Your task to perform on an android device: all mails in gmail Image 0: 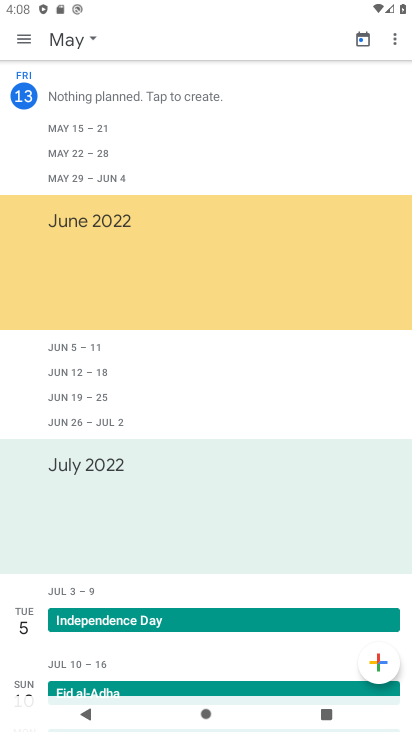
Step 0: press home button
Your task to perform on an android device: all mails in gmail Image 1: 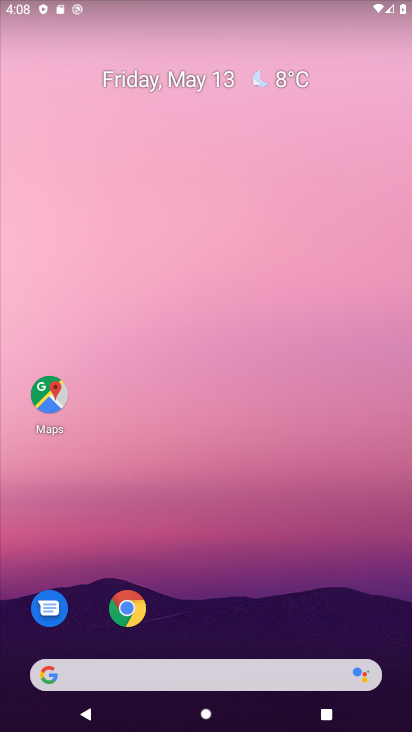
Step 1: drag from (217, 559) to (208, 74)
Your task to perform on an android device: all mails in gmail Image 2: 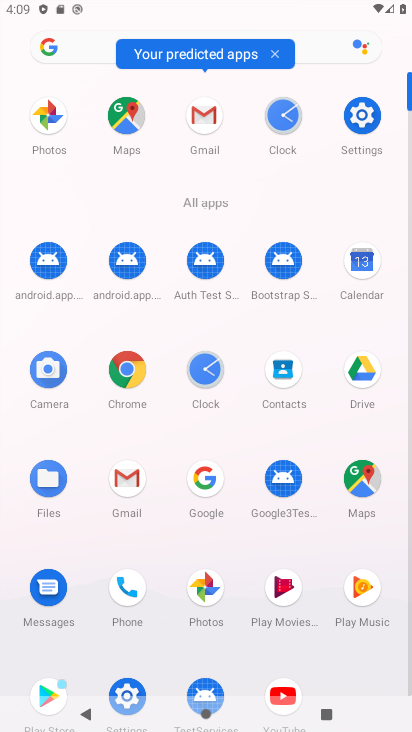
Step 2: click (199, 114)
Your task to perform on an android device: all mails in gmail Image 3: 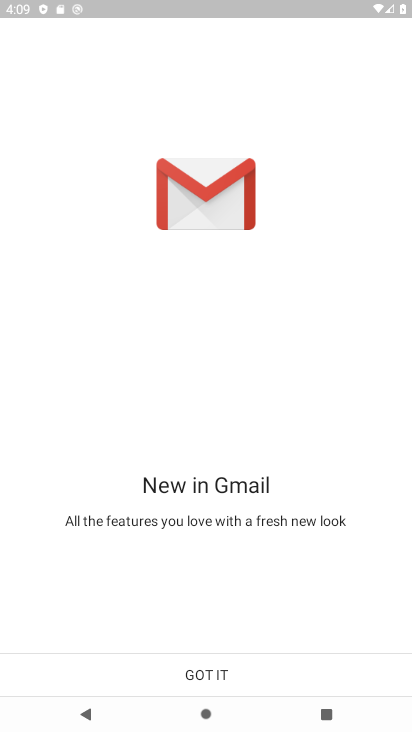
Step 3: click (215, 671)
Your task to perform on an android device: all mails in gmail Image 4: 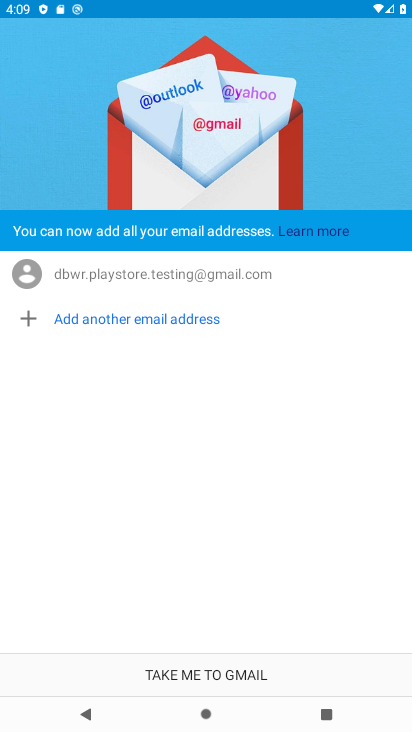
Step 4: click (215, 671)
Your task to perform on an android device: all mails in gmail Image 5: 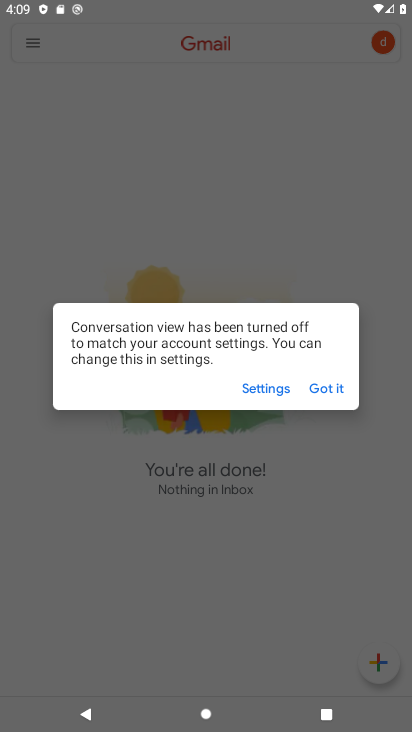
Step 5: click (320, 388)
Your task to perform on an android device: all mails in gmail Image 6: 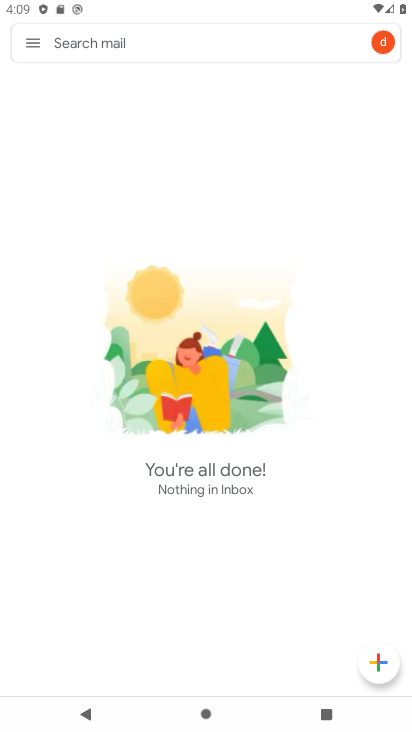
Step 6: click (32, 41)
Your task to perform on an android device: all mails in gmail Image 7: 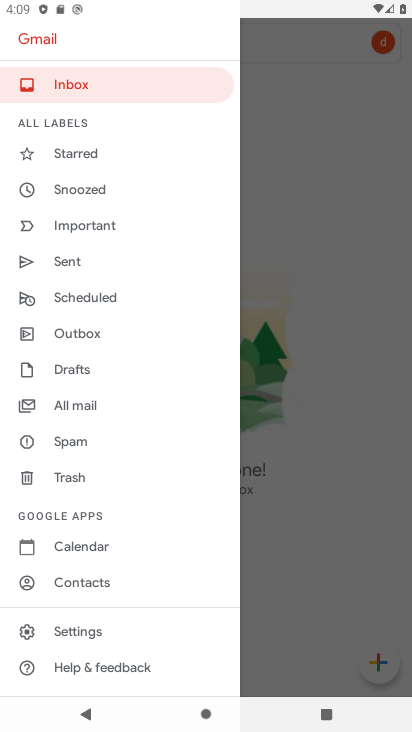
Step 7: click (76, 404)
Your task to perform on an android device: all mails in gmail Image 8: 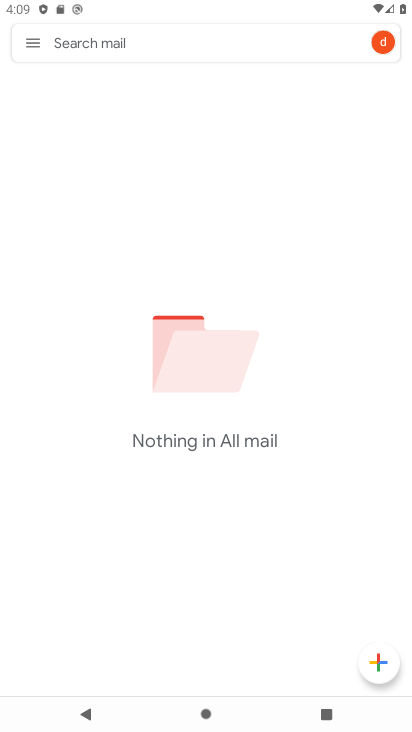
Step 8: task complete